Your task to perform on an android device: Go to sound settings Image 0: 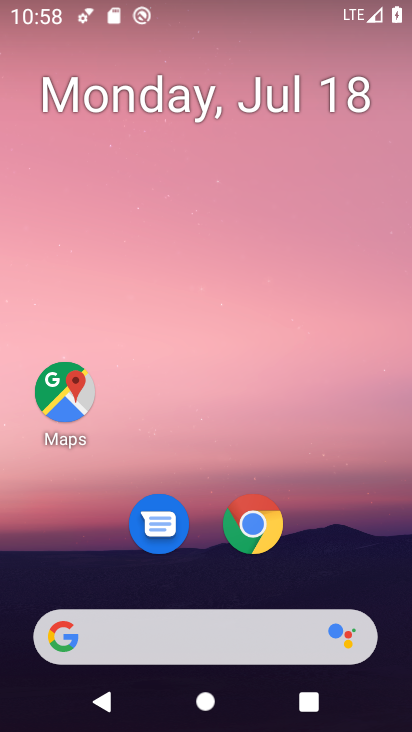
Step 0: drag from (316, 538) to (347, 16)
Your task to perform on an android device: Go to sound settings Image 1: 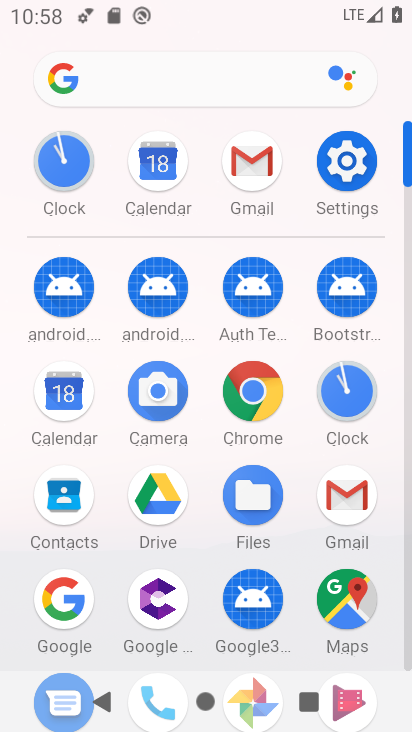
Step 1: click (346, 149)
Your task to perform on an android device: Go to sound settings Image 2: 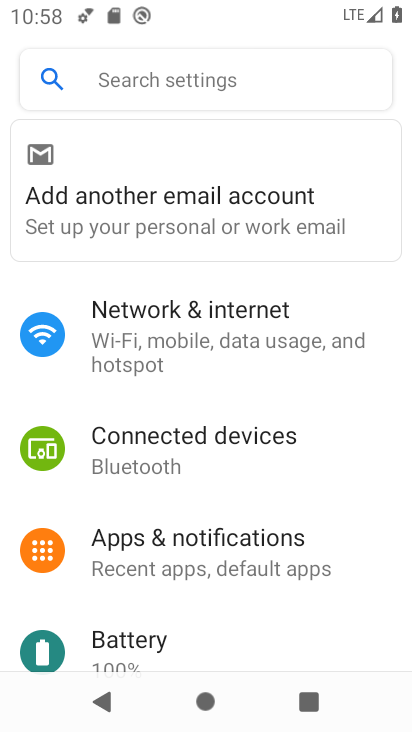
Step 2: drag from (220, 492) to (286, 0)
Your task to perform on an android device: Go to sound settings Image 3: 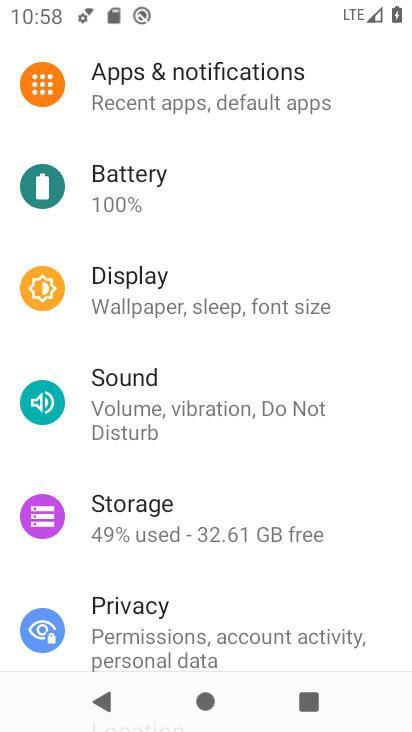
Step 3: click (206, 406)
Your task to perform on an android device: Go to sound settings Image 4: 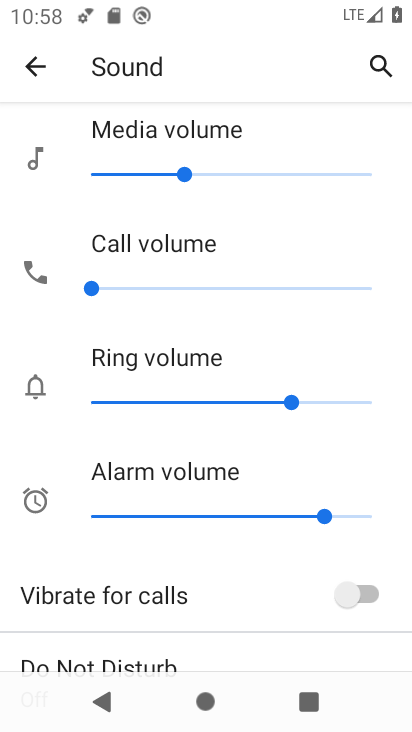
Step 4: task complete